Your task to perform on an android device: change alarm snooze length Image 0: 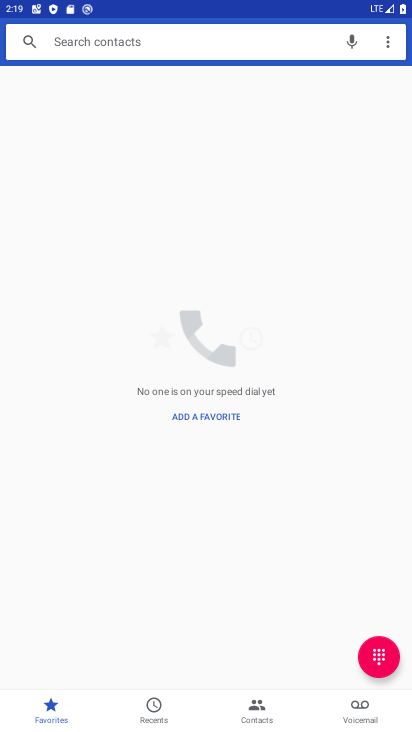
Step 0: press home button
Your task to perform on an android device: change alarm snooze length Image 1: 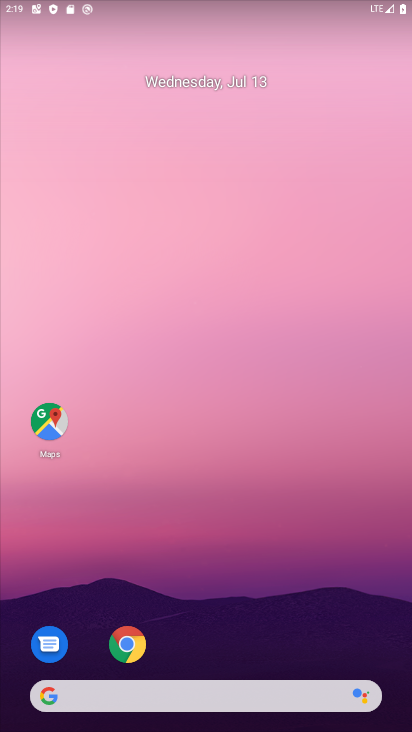
Step 1: drag from (338, 575) to (238, 155)
Your task to perform on an android device: change alarm snooze length Image 2: 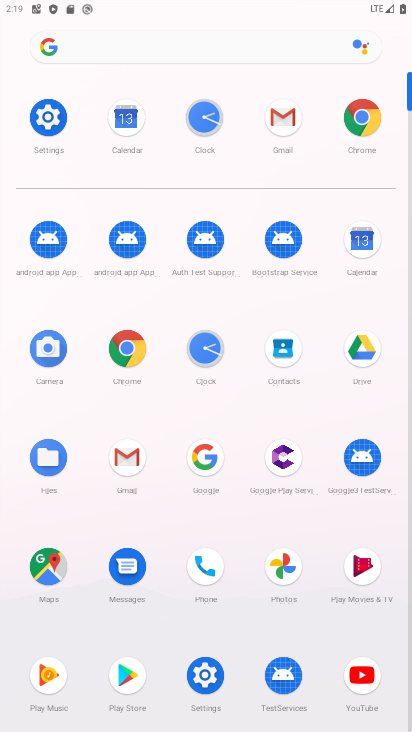
Step 2: click (190, 349)
Your task to perform on an android device: change alarm snooze length Image 3: 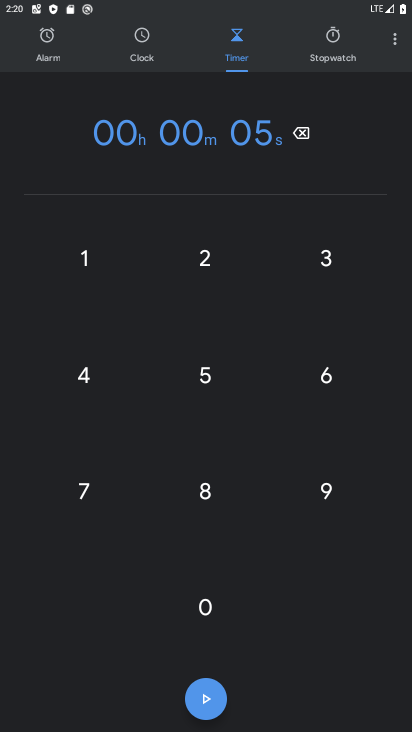
Step 3: click (398, 33)
Your task to perform on an android device: change alarm snooze length Image 4: 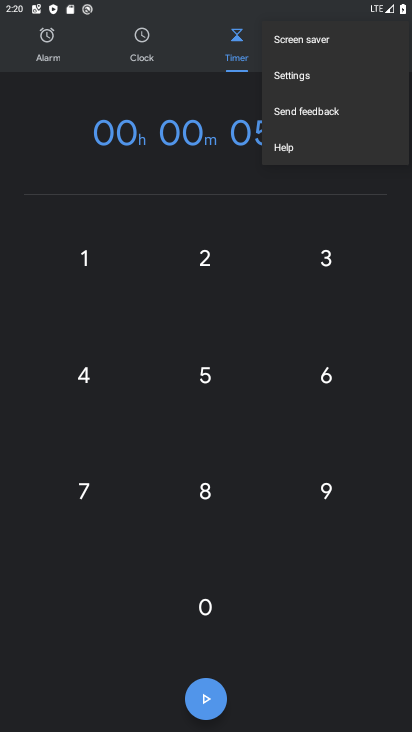
Step 4: click (281, 81)
Your task to perform on an android device: change alarm snooze length Image 5: 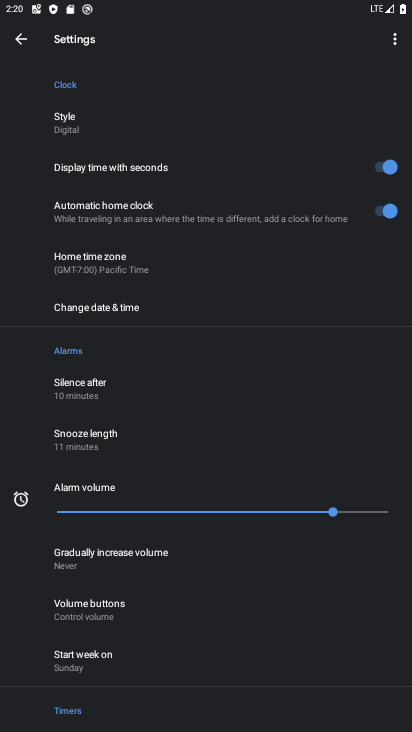
Step 5: click (93, 447)
Your task to perform on an android device: change alarm snooze length Image 6: 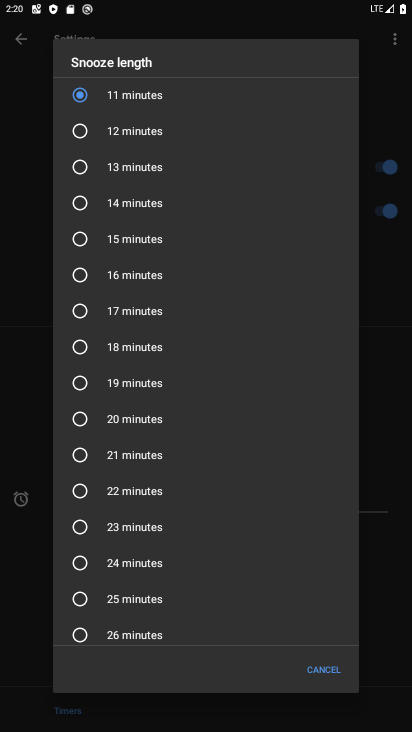
Step 6: click (139, 128)
Your task to perform on an android device: change alarm snooze length Image 7: 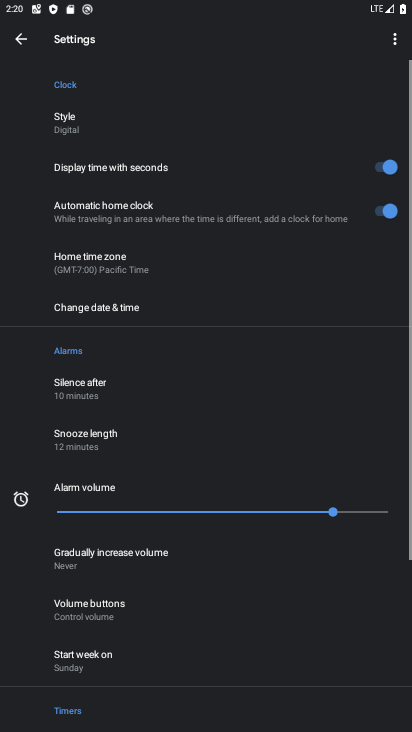
Step 7: task complete